Your task to perform on an android device: change the clock display to analog Image 0: 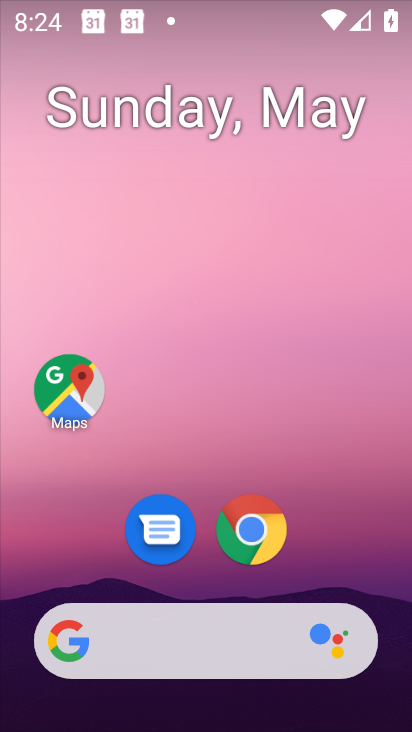
Step 0: drag from (339, 554) to (339, 374)
Your task to perform on an android device: change the clock display to analog Image 1: 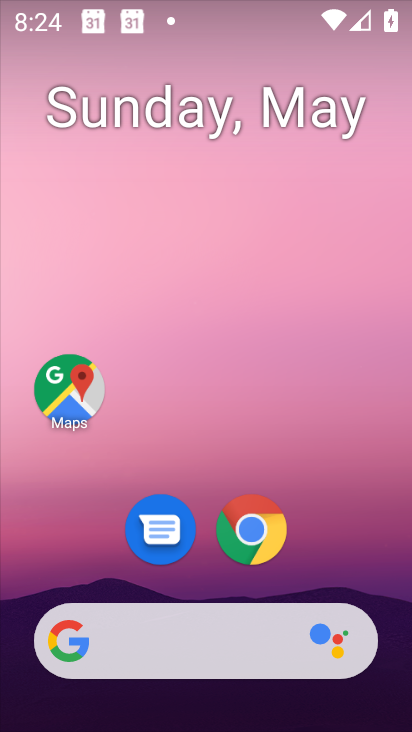
Step 1: drag from (347, 561) to (320, 344)
Your task to perform on an android device: change the clock display to analog Image 2: 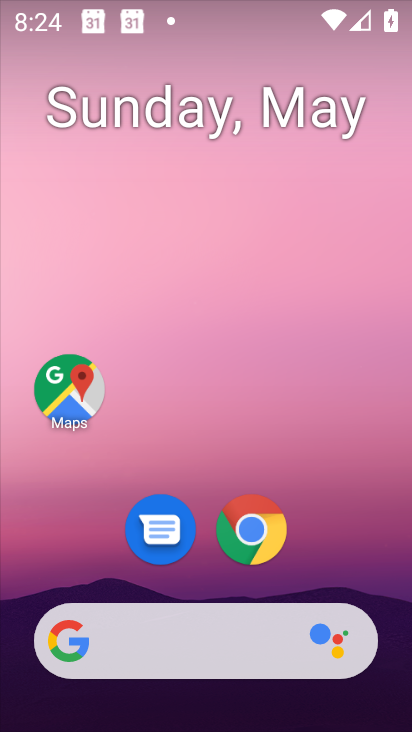
Step 2: drag from (330, 552) to (326, 357)
Your task to perform on an android device: change the clock display to analog Image 3: 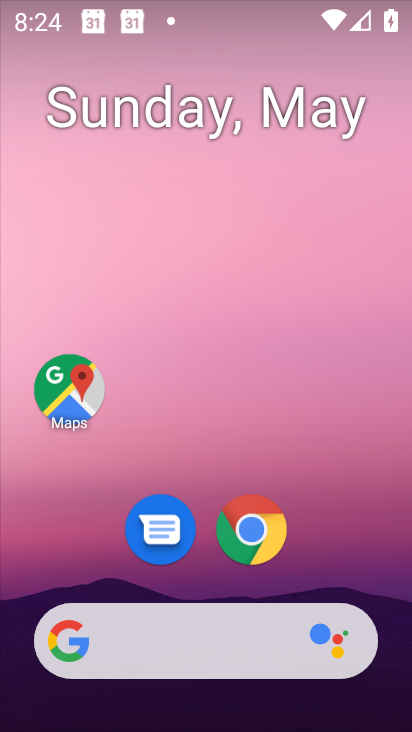
Step 3: drag from (364, 528) to (344, 0)
Your task to perform on an android device: change the clock display to analog Image 4: 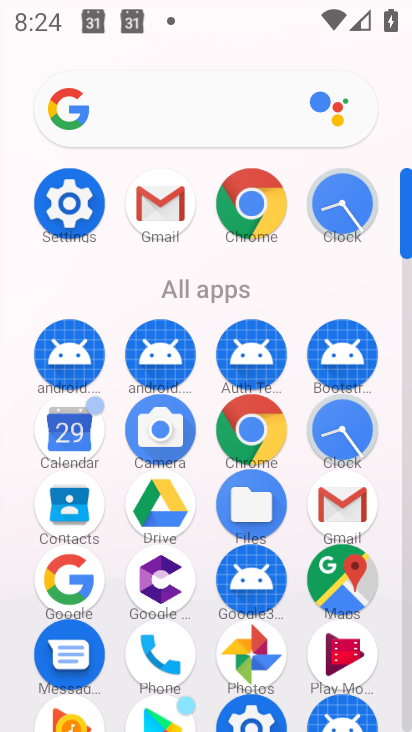
Step 4: click (354, 426)
Your task to perform on an android device: change the clock display to analog Image 5: 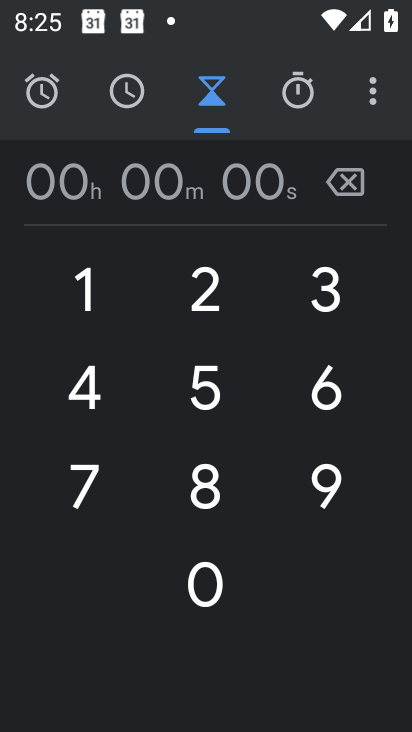
Step 5: click (376, 108)
Your task to perform on an android device: change the clock display to analog Image 6: 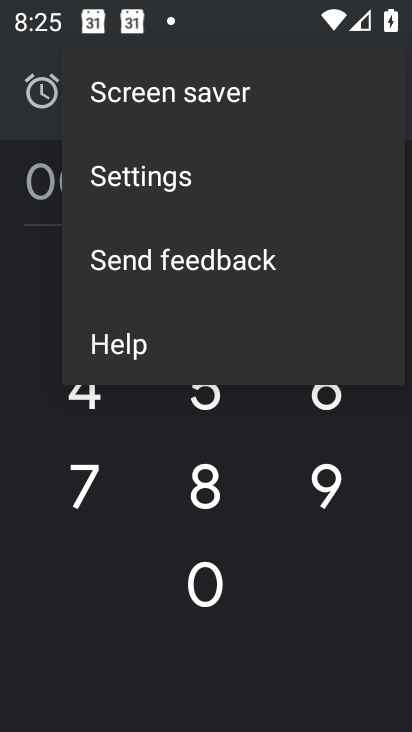
Step 6: click (335, 168)
Your task to perform on an android device: change the clock display to analog Image 7: 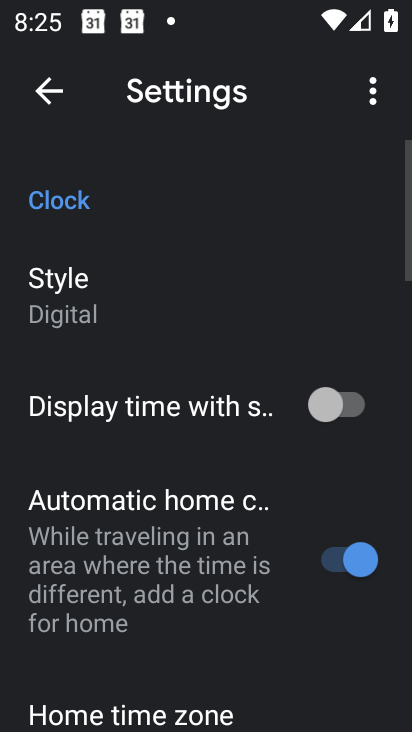
Step 7: click (205, 287)
Your task to perform on an android device: change the clock display to analog Image 8: 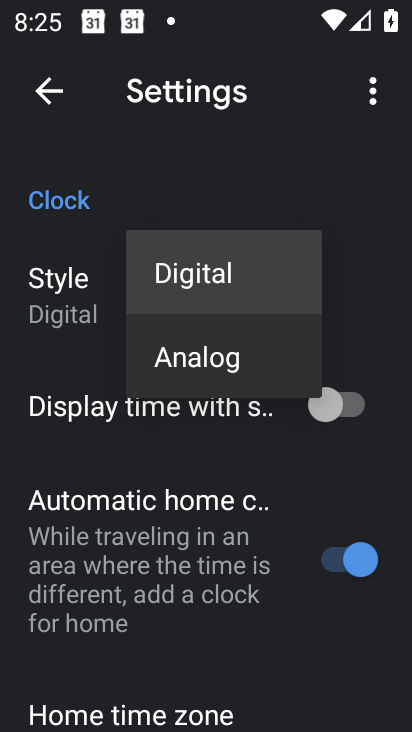
Step 8: click (235, 324)
Your task to perform on an android device: change the clock display to analog Image 9: 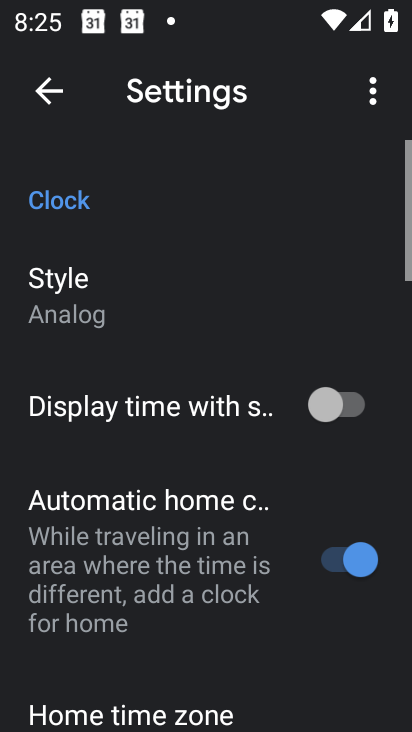
Step 9: task complete